Your task to perform on an android device: Open Maps and search for coffee Image 0: 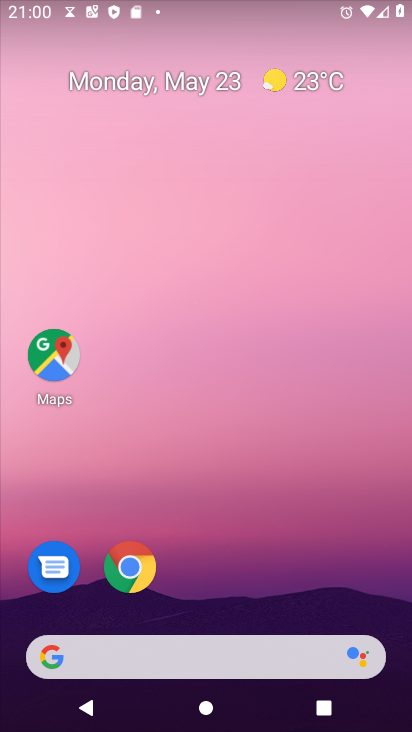
Step 0: drag from (228, 594) to (245, 238)
Your task to perform on an android device: Open Maps and search for coffee Image 1: 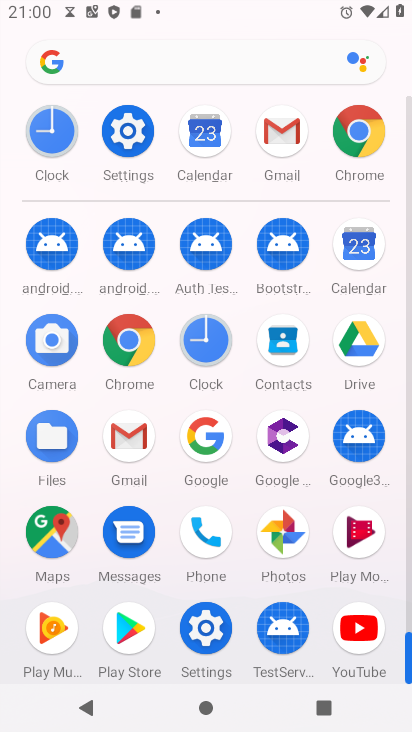
Step 1: click (55, 517)
Your task to perform on an android device: Open Maps and search for coffee Image 2: 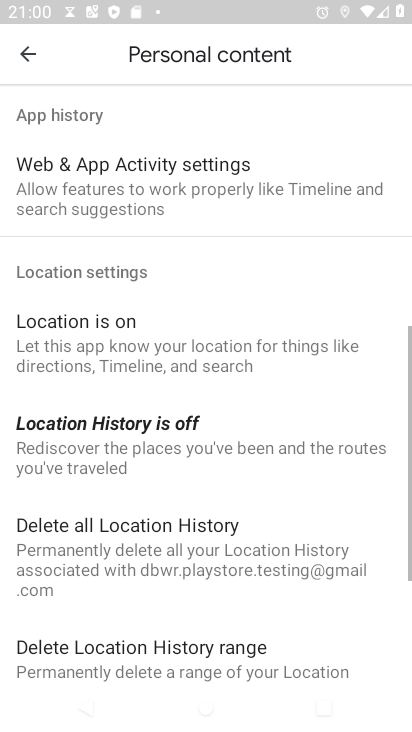
Step 2: click (24, 59)
Your task to perform on an android device: Open Maps and search for coffee Image 3: 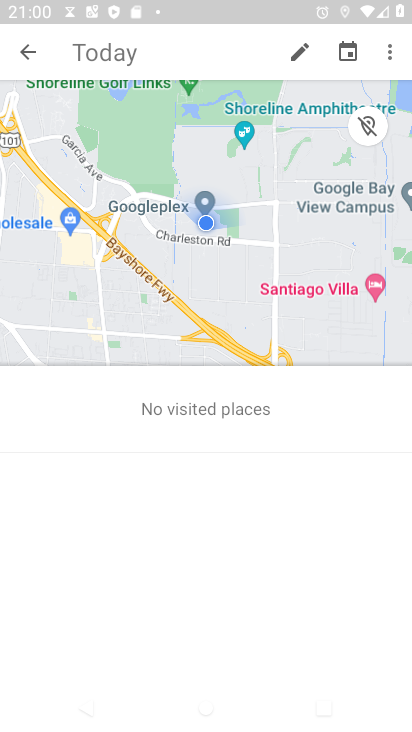
Step 3: click (30, 52)
Your task to perform on an android device: Open Maps and search for coffee Image 4: 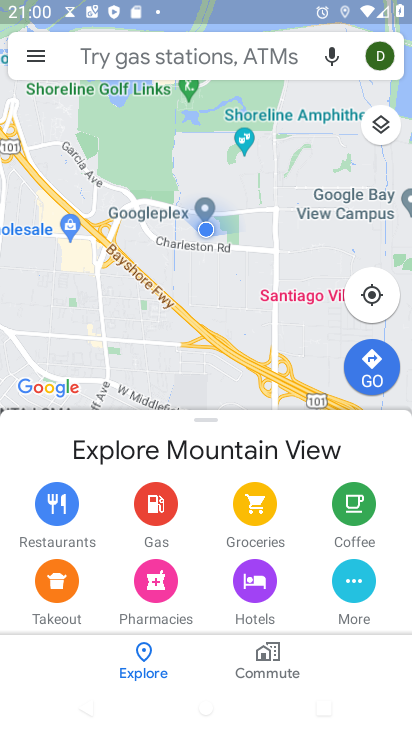
Step 4: click (111, 52)
Your task to perform on an android device: Open Maps and search for coffee Image 5: 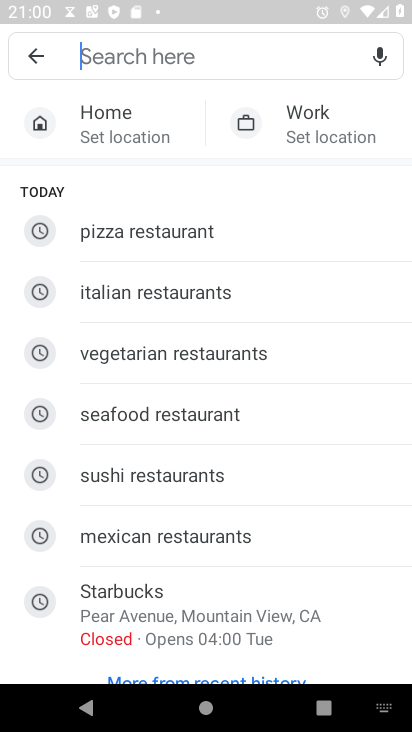
Step 5: type " coffee"
Your task to perform on an android device: Open Maps and search for coffee Image 6: 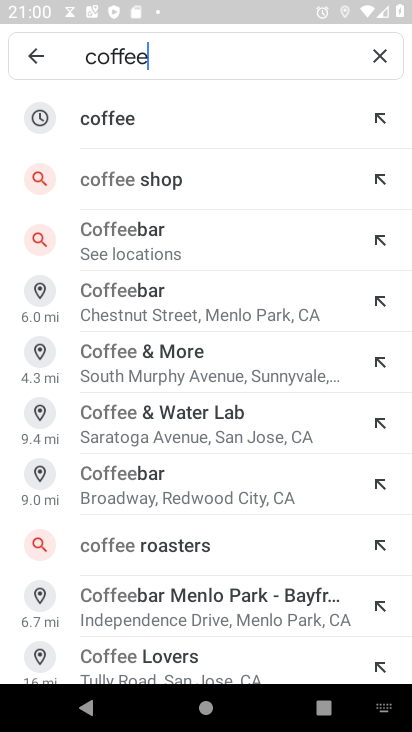
Step 6: click (104, 115)
Your task to perform on an android device: Open Maps and search for coffee Image 7: 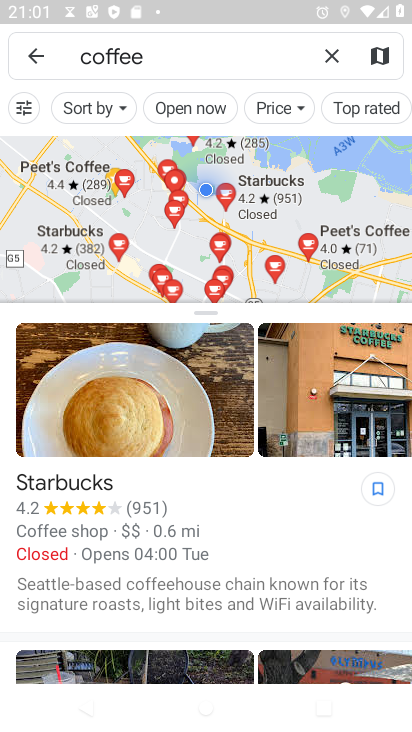
Step 7: task complete